Your task to perform on an android device: turn off translation in the chrome app Image 0: 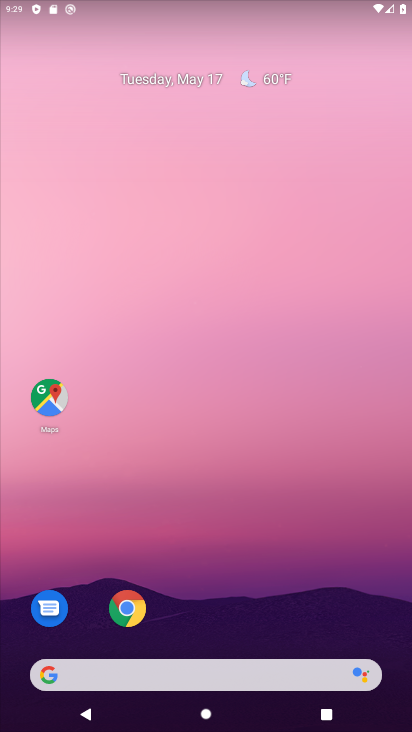
Step 0: click (123, 611)
Your task to perform on an android device: turn off translation in the chrome app Image 1: 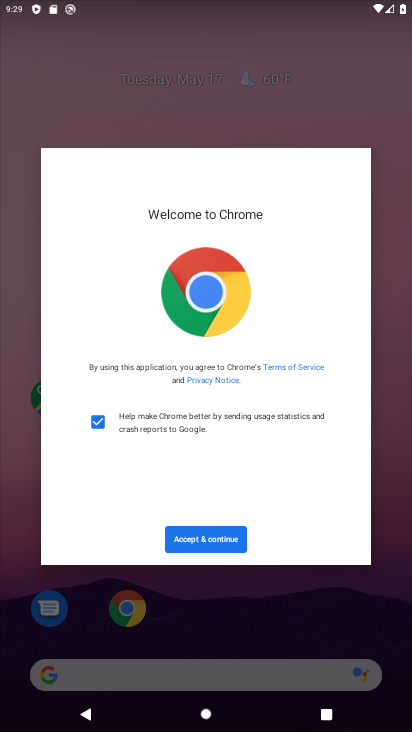
Step 1: click (218, 542)
Your task to perform on an android device: turn off translation in the chrome app Image 2: 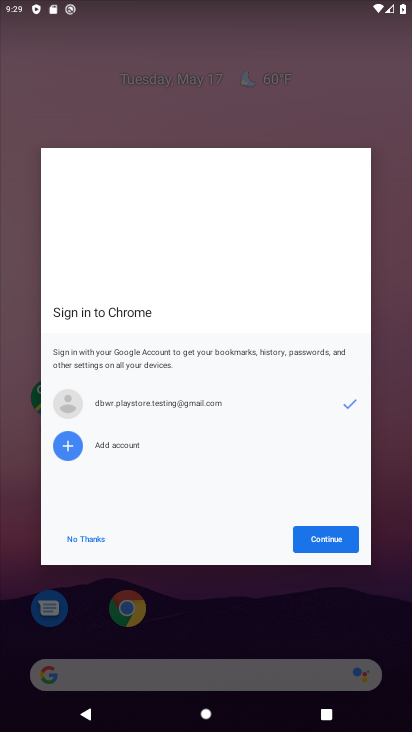
Step 2: click (335, 536)
Your task to perform on an android device: turn off translation in the chrome app Image 3: 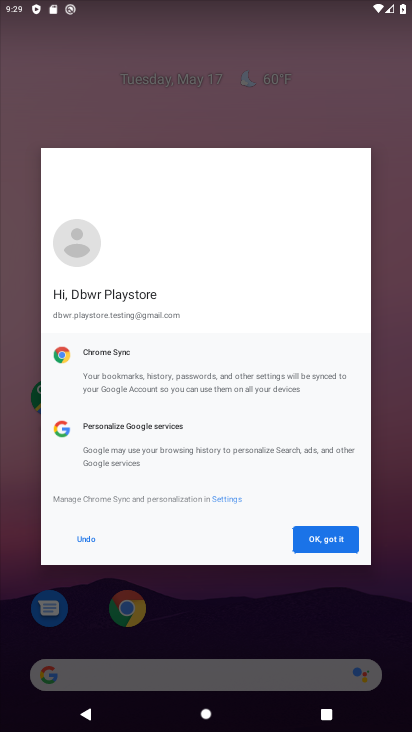
Step 3: click (318, 540)
Your task to perform on an android device: turn off translation in the chrome app Image 4: 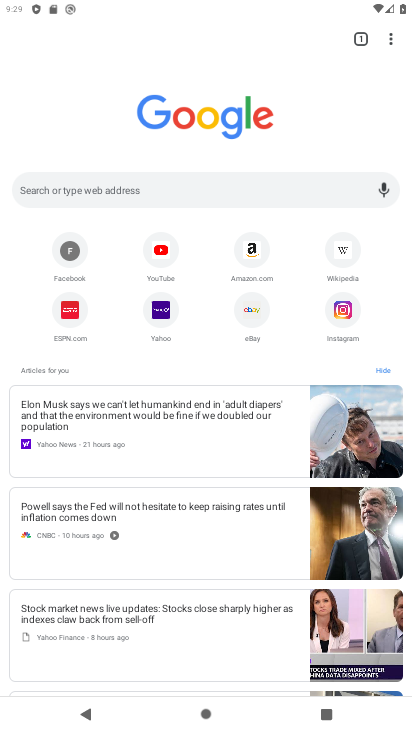
Step 4: click (387, 34)
Your task to perform on an android device: turn off translation in the chrome app Image 5: 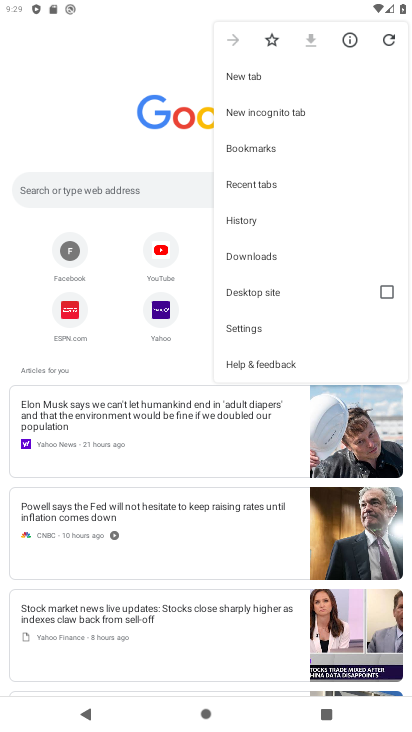
Step 5: click (240, 324)
Your task to perform on an android device: turn off translation in the chrome app Image 6: 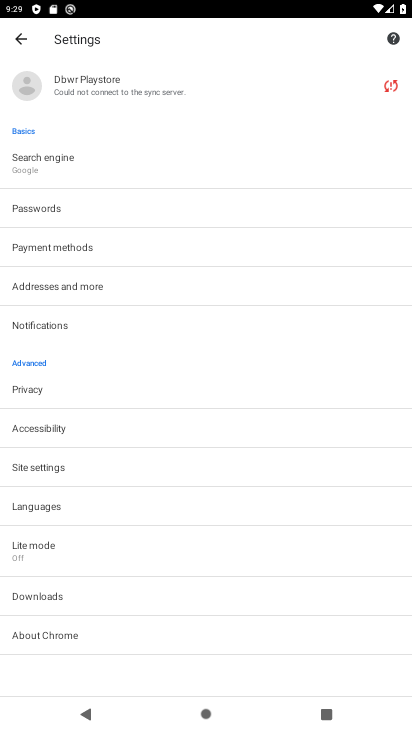
Step 6: click (43, 510)
Your task to perform on an android device: turn off translation in the chrome app Image 7: 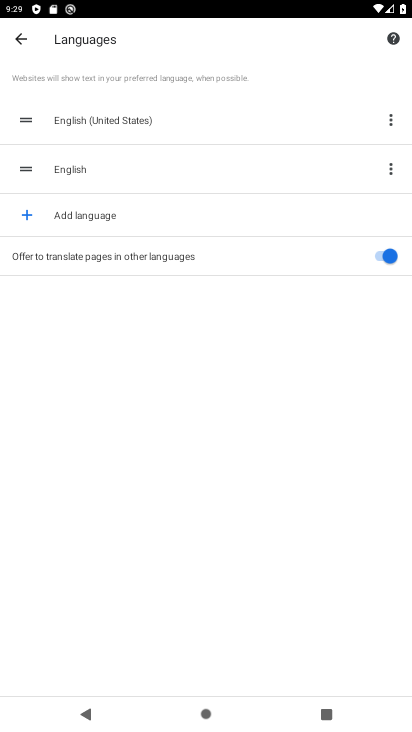
Step 7: click (389, 258)
Your task to perform on an android device: turn off translation in the chrome app Image 8: 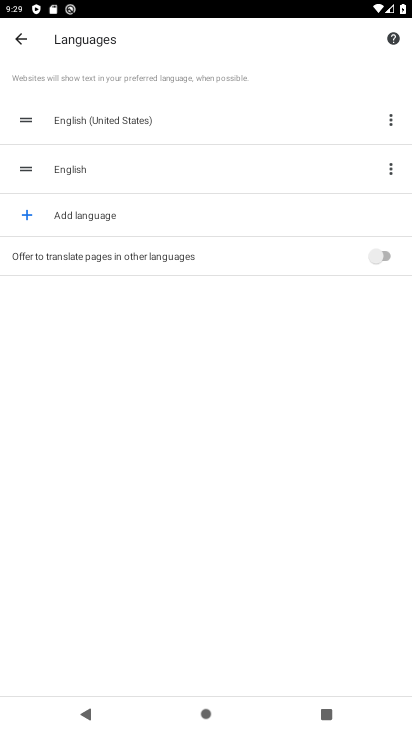
Step 8: task complete